Your task to perform on an android device: check out phone information Image 0: 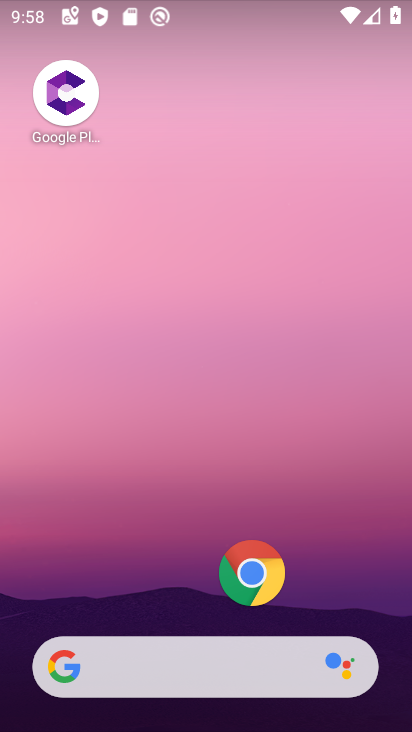
Step 0: drag from (171, 629) to (229, 55)
Your task to perform on an android device: check out phone information Image 1: 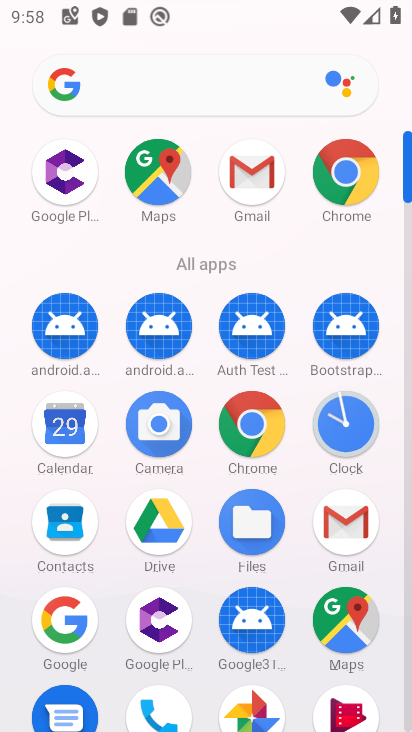
Step 1: drag from (201, 695) to (203, 165)
Your task to perform on an android device: check out phone information Image 2: 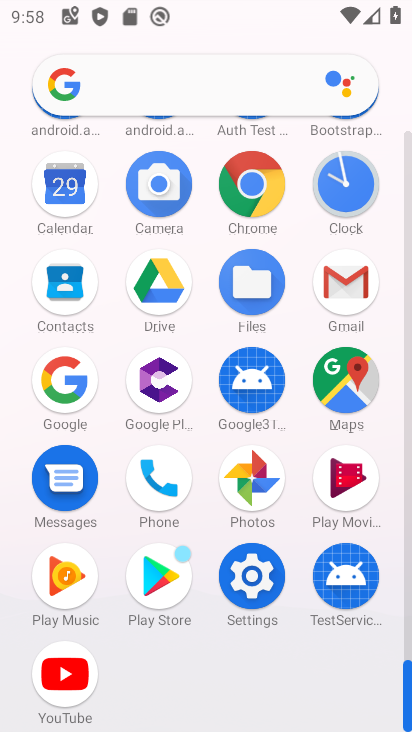
Step 2: click (246, 598)
Your task to perform on an android device: check out phone information Image 3: 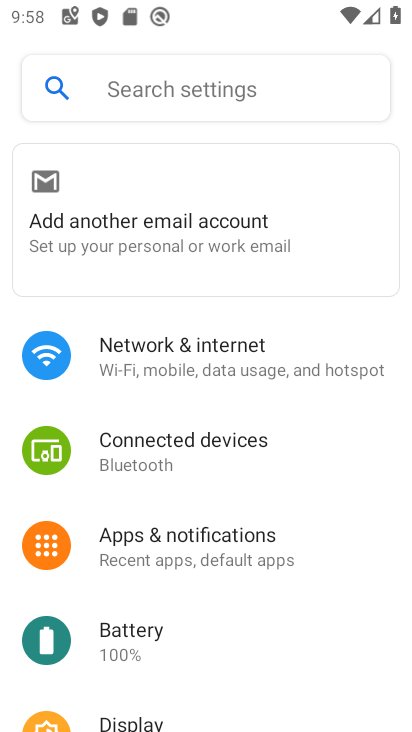
Step 3: drag from (246, 598) to (285, 109)
Your task to perform on an android device: check out phone information Image 4: 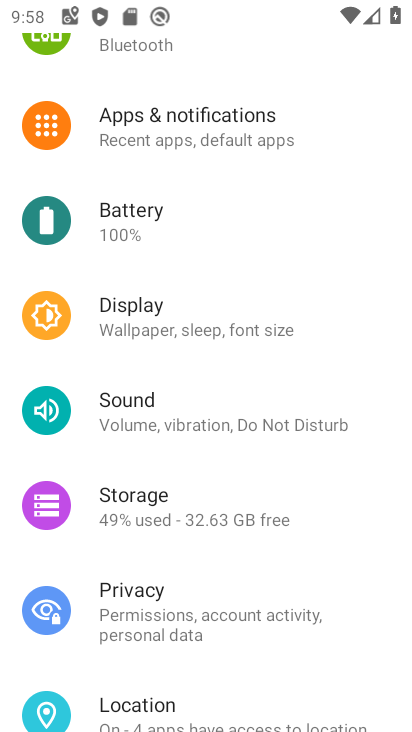
Step 4: drag from (136, 696) to (227, 160)
Your task to perform on an android device: check out phone information Image 5: 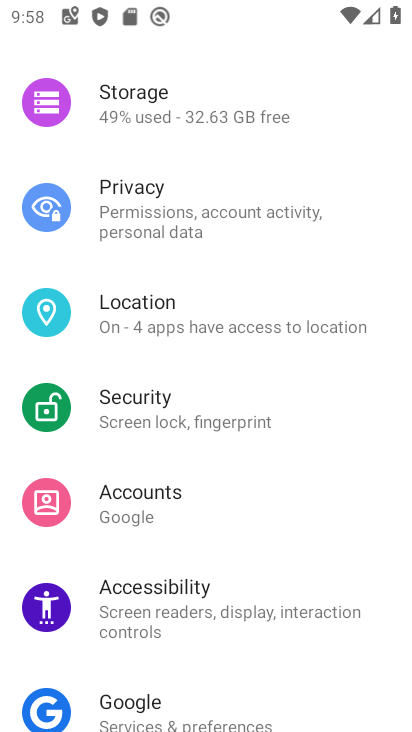
Step 5: drag from (130, 684) to (240, 33)
Your task to perform on an android device: check out phone information Image 6: 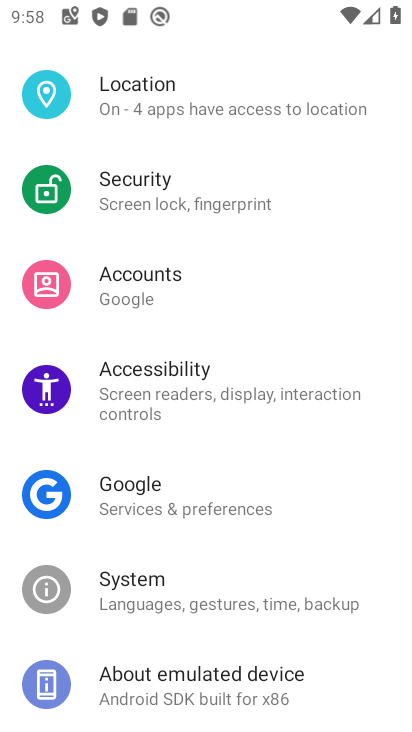
Step 6: click (209, 687)
Your task to perform on an android device: check out phone information Image 7: 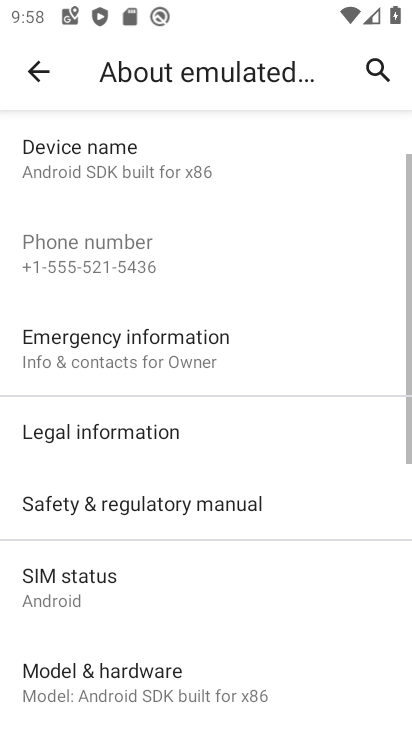
Step 7: task complete